Your task to perform on an android device: toggle improve location accuracy Image 0: 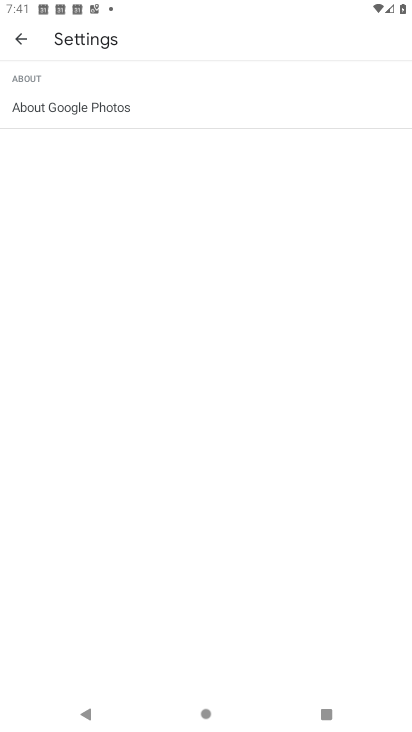
Step 0: press home button
Your task to perform on an android device: toggle improve location accuracy Image 1: 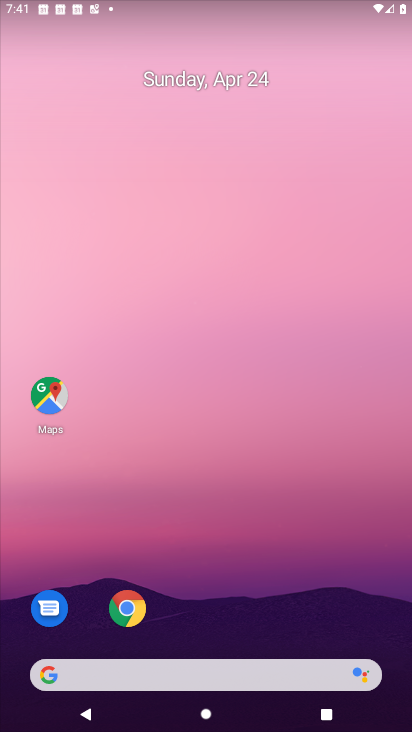
Step 1: drag from (217, 513) to (230, 174)
Your task to perform on an android device: toggle improve location accuracy Image 2: 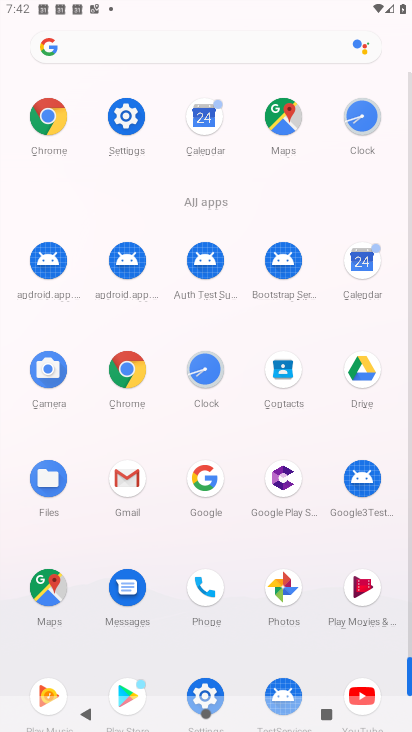
Step 2: click (127, 105)
Your task to perform on an android device: toggle improve location accuracy Image 3: 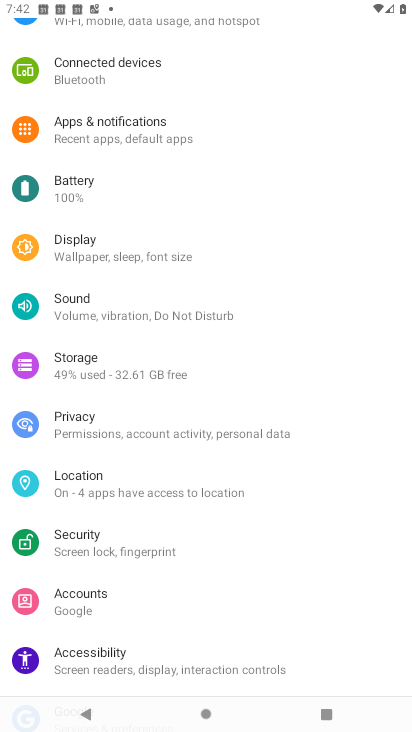
Step 3: click (88, 492)
Your task to perform on an android device: toggle improve location accuracy Image 4: 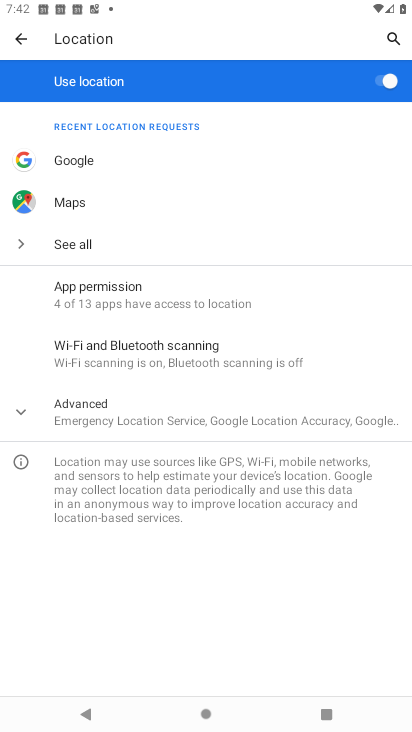
Step 4: click (90, 424)
Your task to perform on an android device: toggle improve location accuracy Image 5: 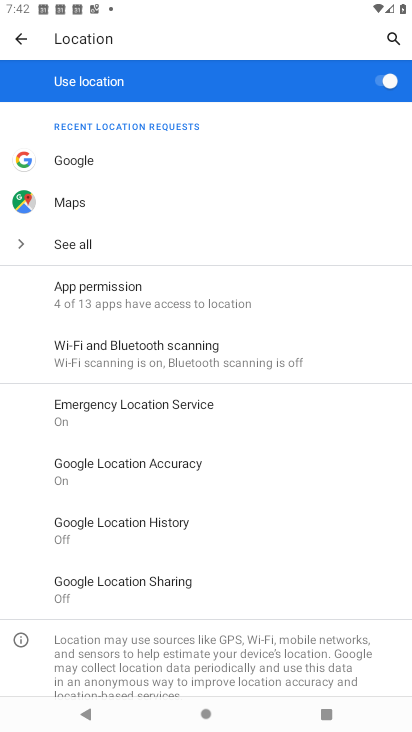
Step 5: click (148, 471)
Your task to perform on an android device: toggle improve location accuracy Image 6: 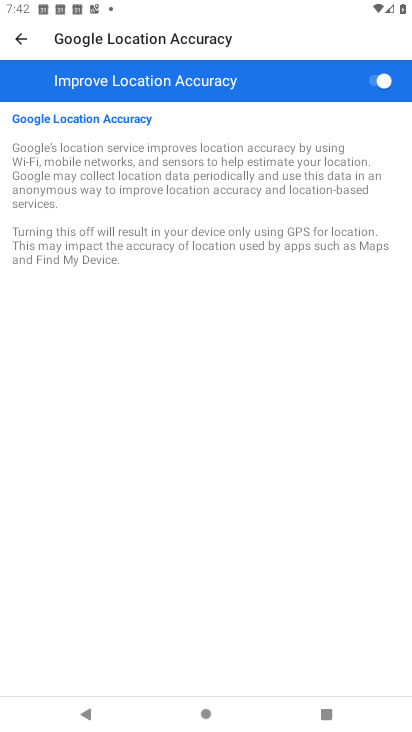
Step 6: click (377, 78)
Your task to perform on an android device: toggle improve location accuracy Image 7: 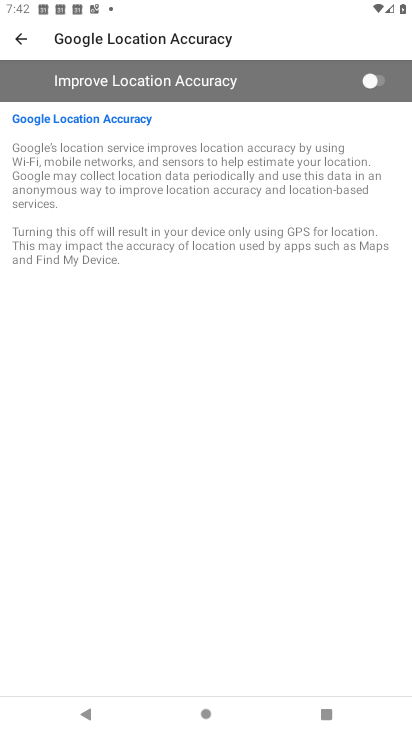
Step 7: task complete